Your task to perform on an android device: toggle pop-ups in chrome Image 0: 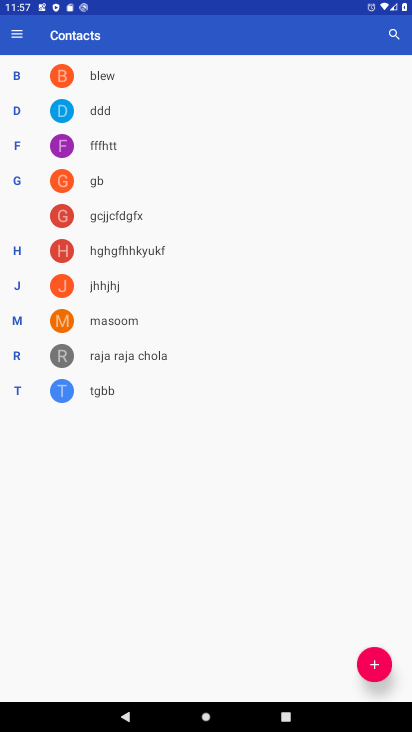
Step 0: drag from (75, 672) to (370, 709)
Your task to perform on an android device: toggle pop-ups in chrome Image 1: 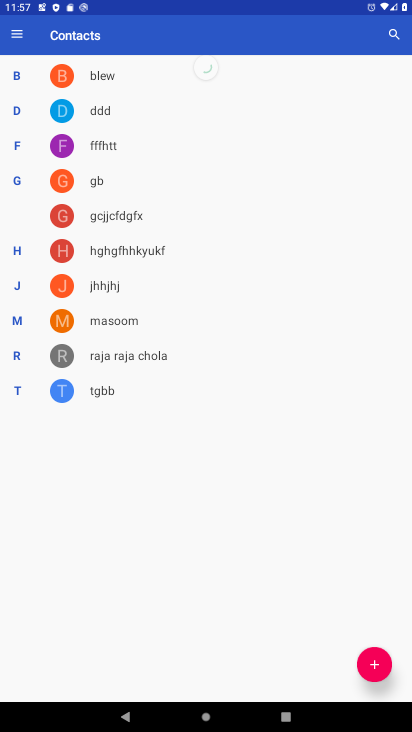
Step 1: press home button
Your task to perform on an android device: toggle pop-ups in chrome Image 2: 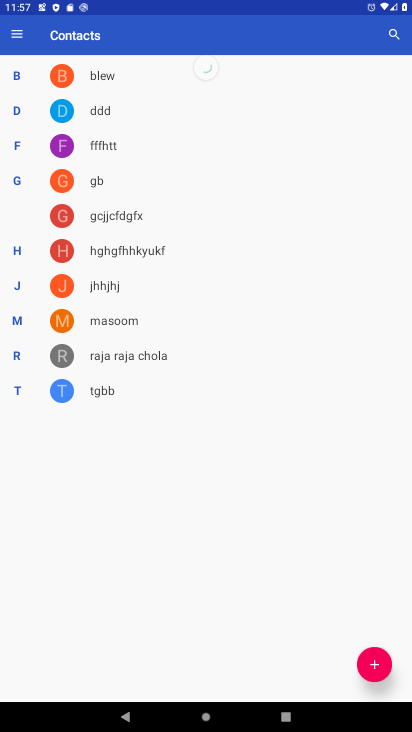
Step 2: drag from (370, 709) to (407, 649)
Your task to perform on an android device: toggle pop-ups in chrome Image 3: 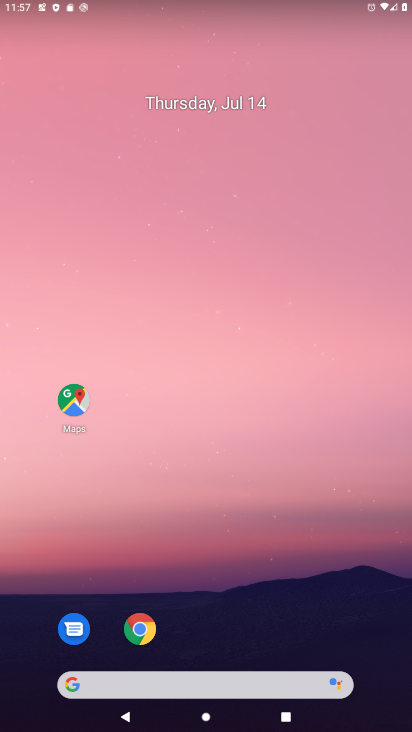
Step 3: drag from (268, 652) to (231, 70)
Your task to perform on an android device: toggle pop-ups in chrome Image 4: 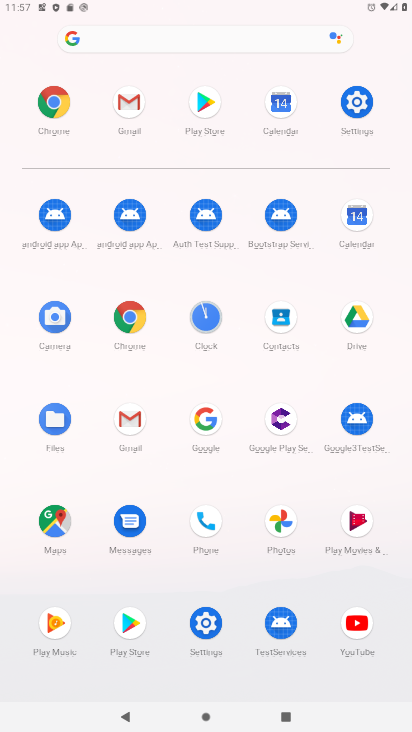
Step 4: click (43, 113)
Your task to perform on an android device: toggle pop-ups in chrome Image 5: 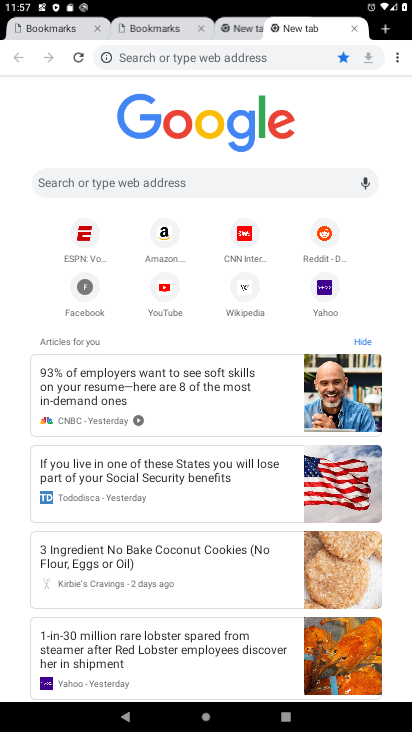
Step 5: drag from (392, 54) to (296, 264)
Your task to perform on an android device: toggle pop-ups in chrome Image 6: 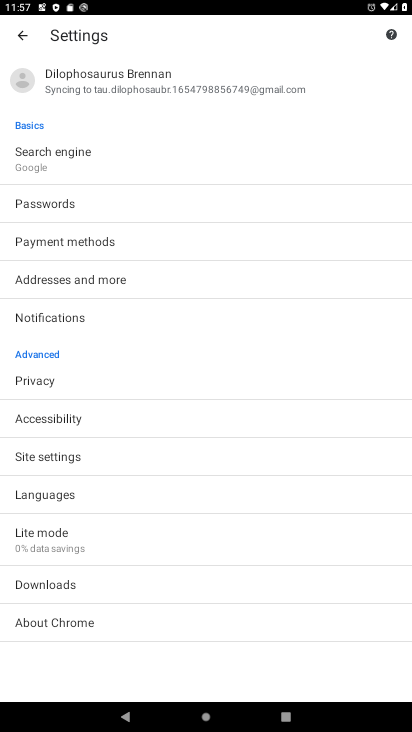
Step 6: click (54, 454)
Your task to perform on an android device: toggle pop-ups in chrome Image 7: 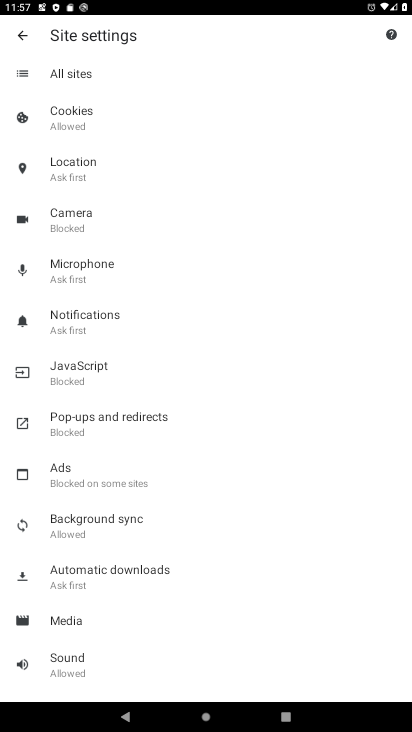
Step 7: click (94, 420)
Your task to perform on an android device: toggle pop-ups in chrome Image 8: 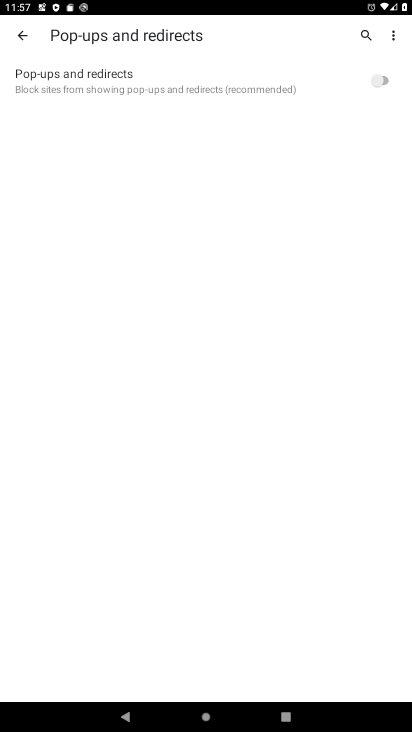
Step 8: click (384, 78)
Your task to perform on an android device: toggle pop-ups in chrome Image 9: 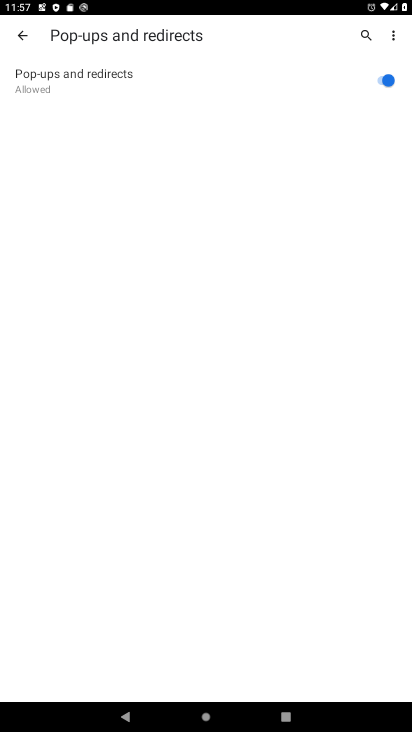
Step 9: task complete